Your task to perform on an android device: add a contact Image 0: 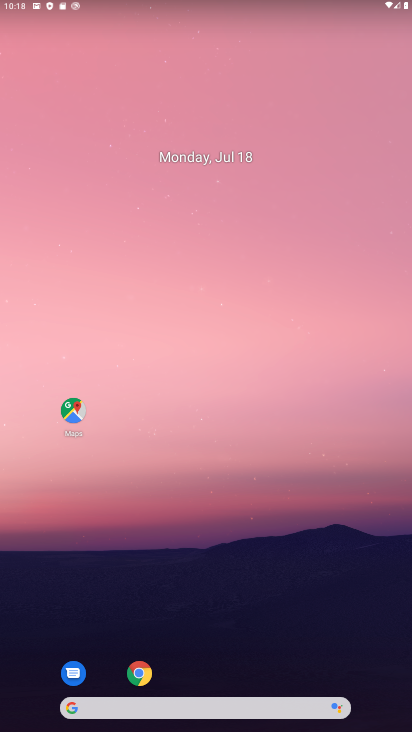
Step 0: drag from (249, 644) to (256, 164)
Your task to perform on an android device: add a contact Image 1: 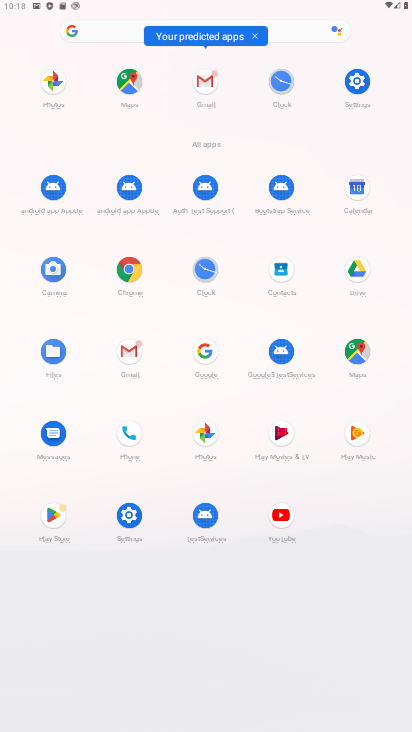
Step 1: click (276, 276)
Your task to perform on an android device: add a contact Image 2: 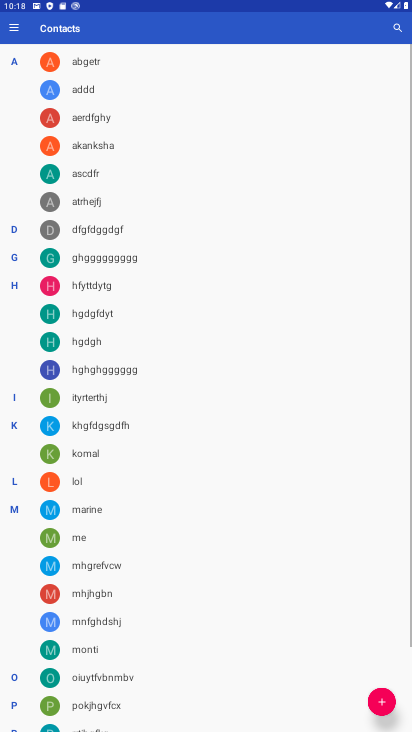
Step 2: click (389, 701)
Your task to perform on an android device: add a contact Image 3: 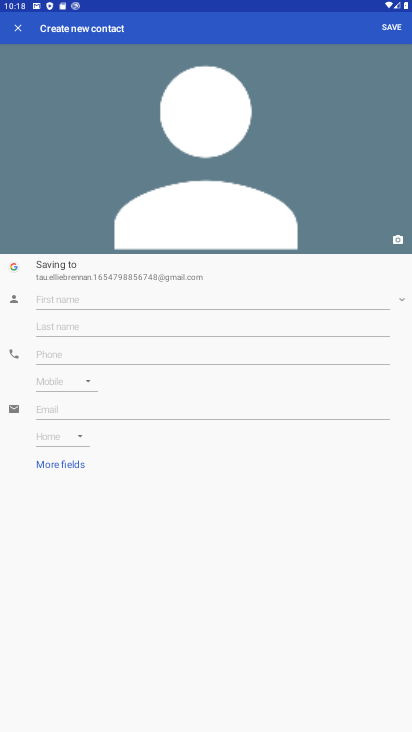
Step 3: click (117, 300)
Your task to perform on an android device: add a contact Image 4: 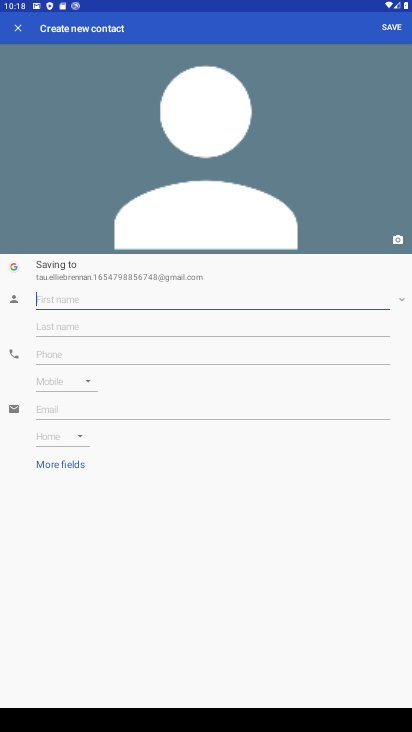
Step 4: type "yuijk"
Your task to perform on an android device: add a contact Image 5: 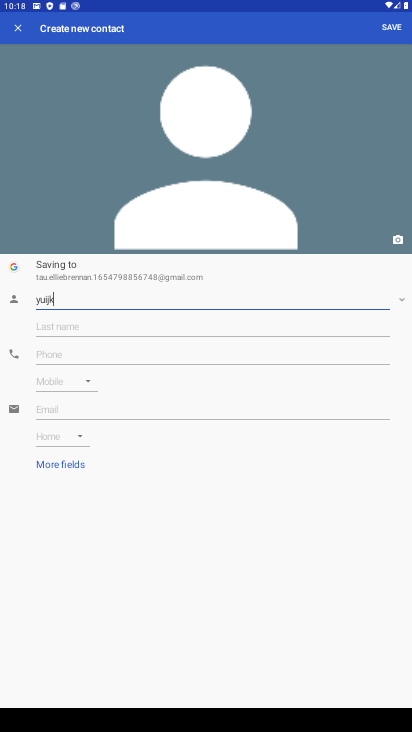
Step 5: click (56, 354)
Your task to perform on an android device: add a contact Image 6: 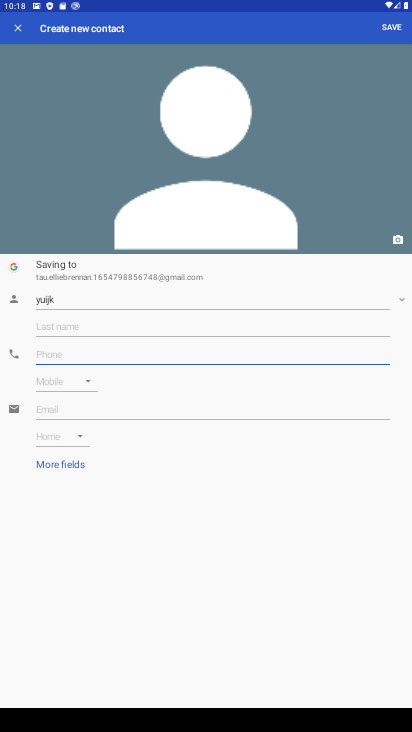
Step 6: type "8765432123"
Your task to perform on an android device: add a contact Image 7: 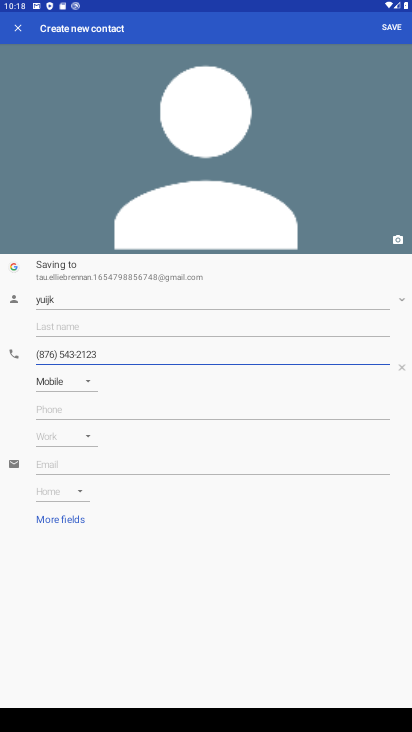
Step 7: click (385, 22)
Your task to perform on an android device: add a contact Image 8: 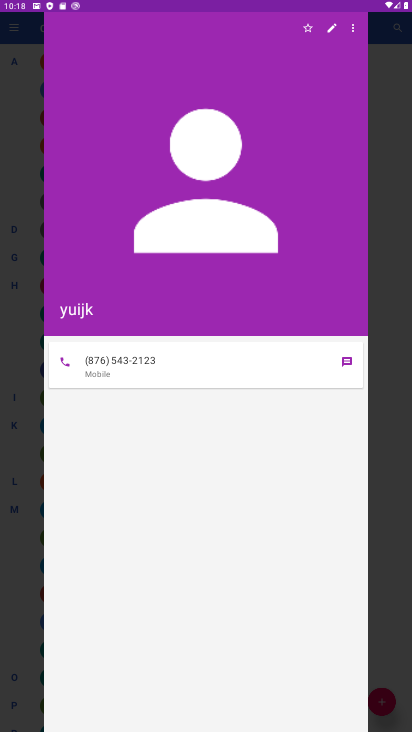
Step 8: task complete